Your task to perform on an android device: Open calendar and show me the fourth week of next month Image 0: 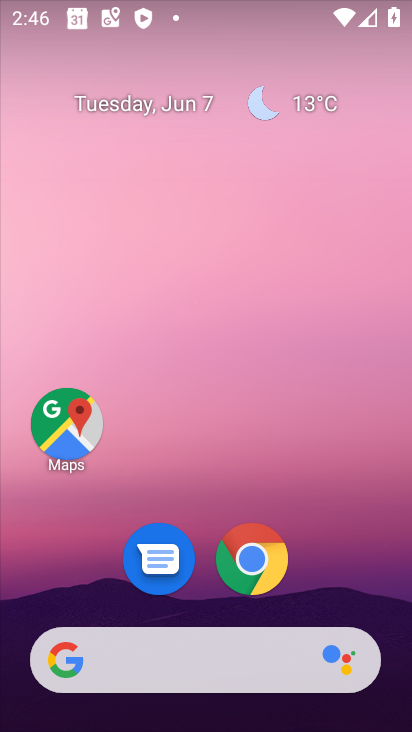
Step 0: drag from (346, 578) to (243, 40)
Your task to perform on an android device: Open calendar and show me the fourth week of next month Image 1: 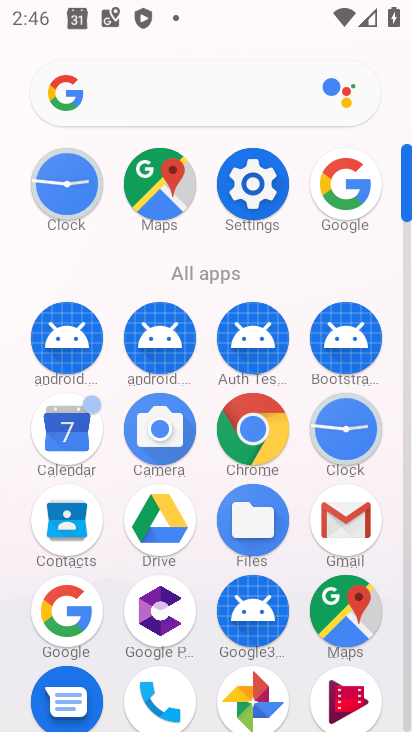
Step 1: click (69, 433)
Your task to perform on an android device: Open calendar and show me the fourth week of next month Image 2: 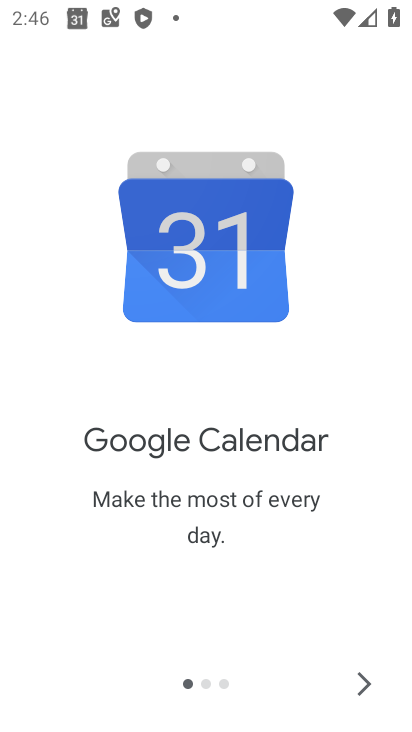
Step 2: click (365, 681)
Your task to perform on an android device: Open calendar and show me the fourth week of next month Image 3: 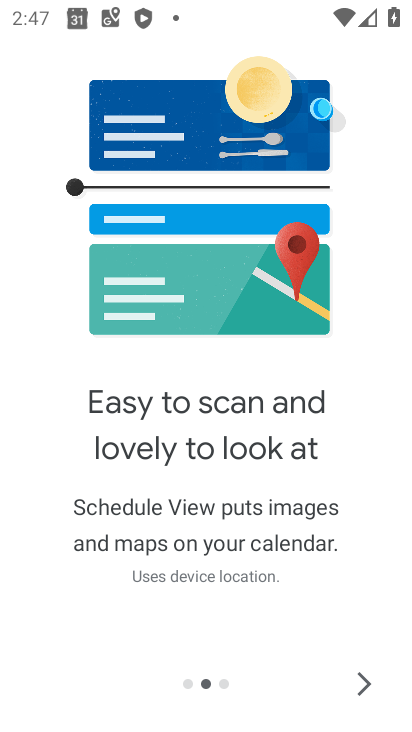
Step 3: click (365, 681)
Your task to perform on an android device: Open calendar and show me the fourth week of next month Image 4: 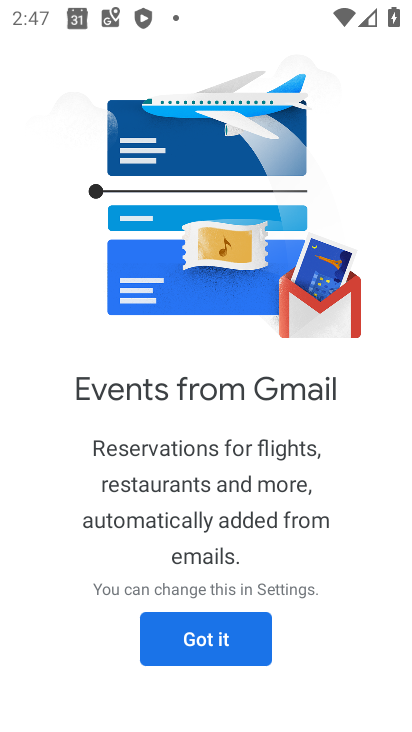
Step 4: click (225, 647)
Your task to perform on an android device: Open calendar and show me the fourth week of next month Image 5: 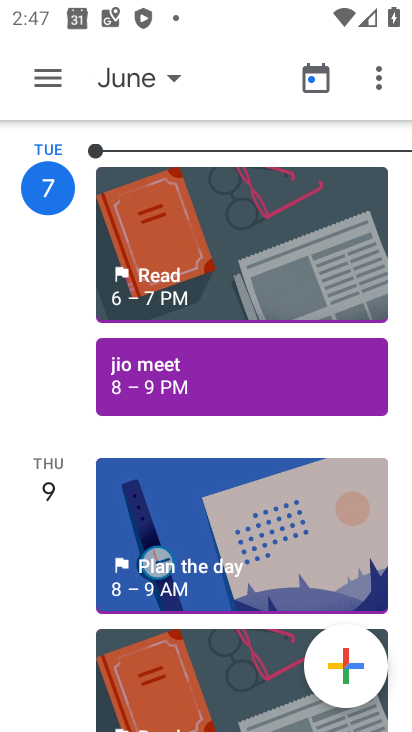
Step 5: click (182, 73)
Your task to perform on an android device: Open calendar and show me the fourth week of next month Image 6: 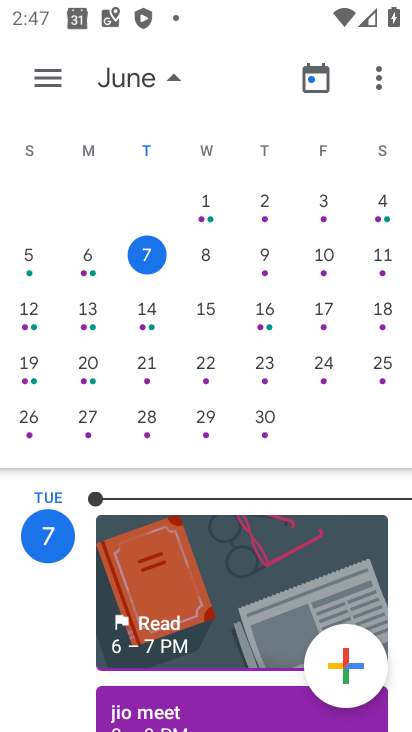
Step 6: drag from (358, 333) to (7, 429)
Your task to perform on an android device: Open calendar and show me the fourth week of next month Image 7: 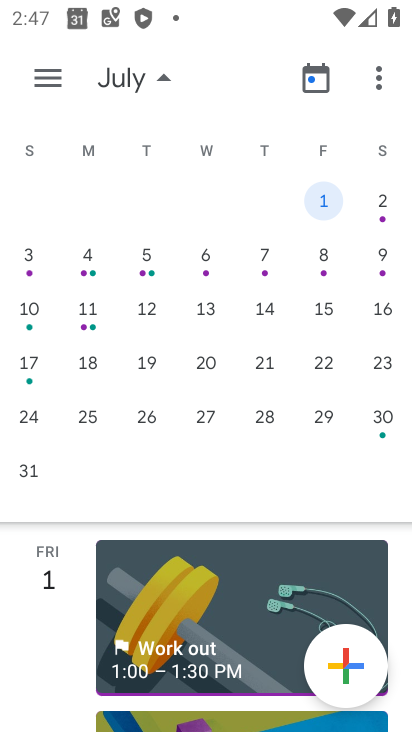
Step 7: click (93, 411)
Your task to perform on an android device: Open calendar and show me the fourth week of next month Image 8: 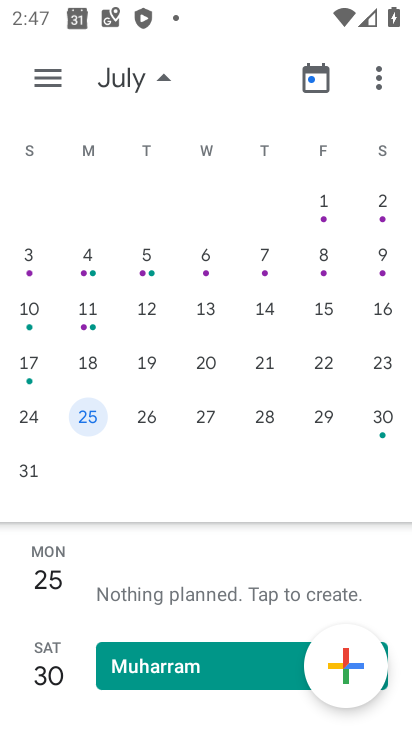
Step 8: click (50, 75)
Your task to perform on an android device: Open calendar and show me the fourth week of next month Image 9: 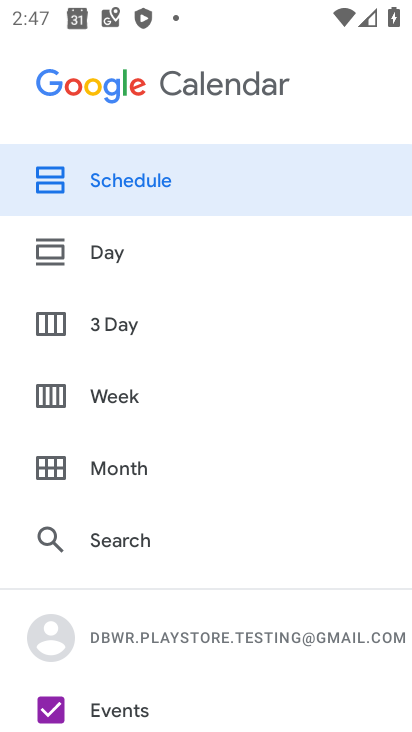
Step 9: click (121, 401)
Your task to perform on an android device: Open calendar and show me the fourth week of next month Image 10: 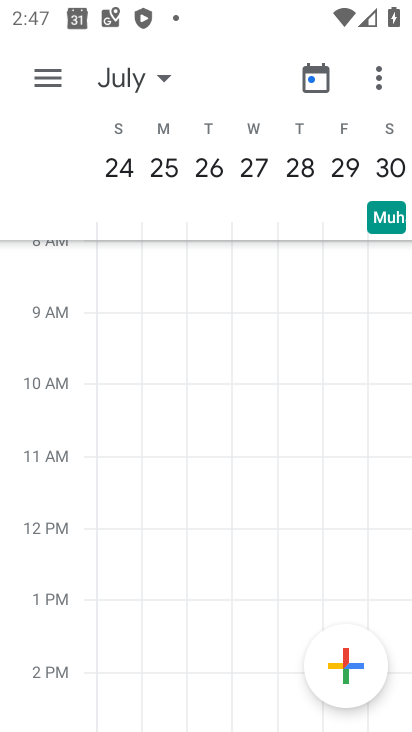
Step 10: task complete